Your task to perform on an android device: Open my contact list Image 0: 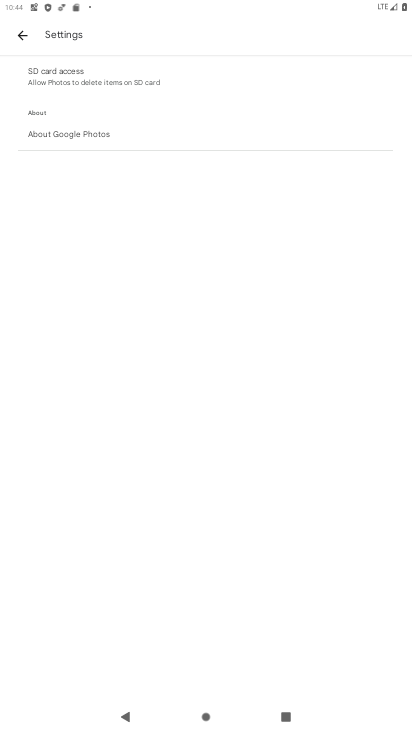
Step 0: press home button
Your task to perform on an android device: Open my contact list Image 1: 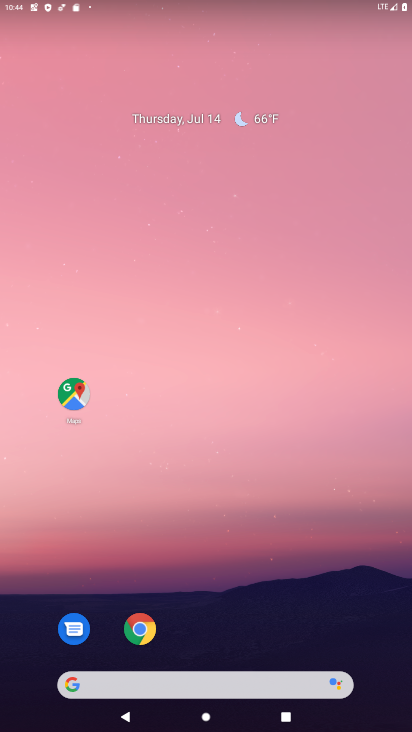
Step 1: drag from (286, 588) to (360, 385)
Your task to perform on an android device: Open my contact list Image 2: 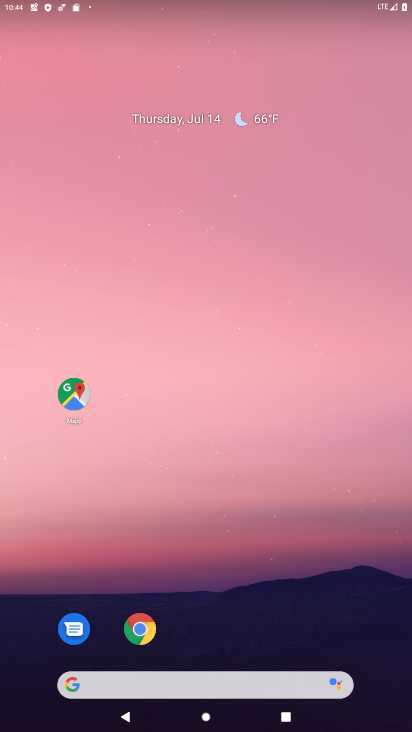
Step 2: drag from (247, 543) to (219, 28)
Your task to perform on an android device: Open my contact list Image 3: 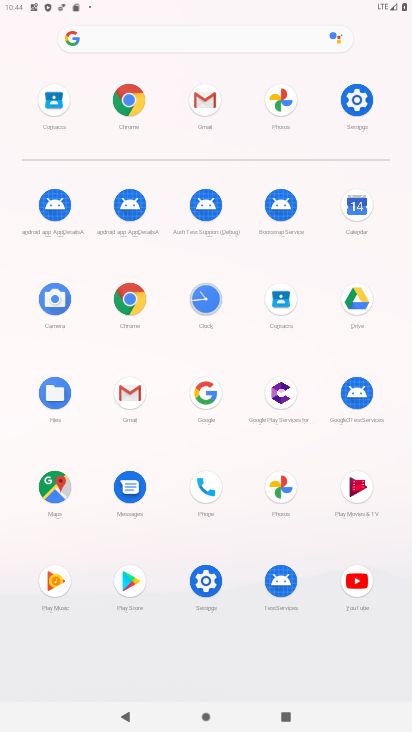
Step 3: click (277, 291)
Your task to perform on an android device: Open my contact list Image 4: 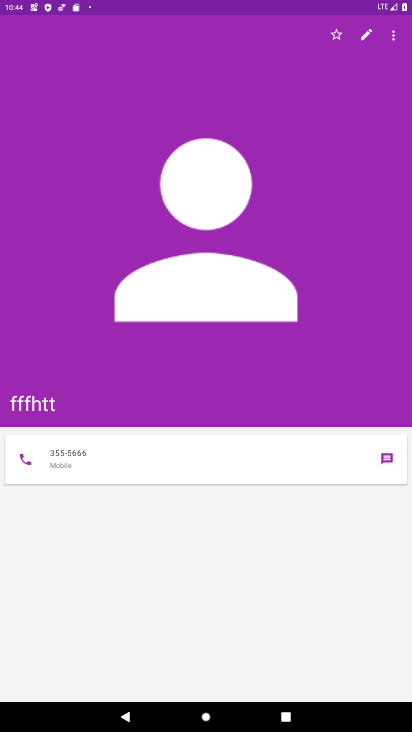
Step 4: task complete